Your task to perform on an android device: turn vacation reply on in the gmail app Image 0: 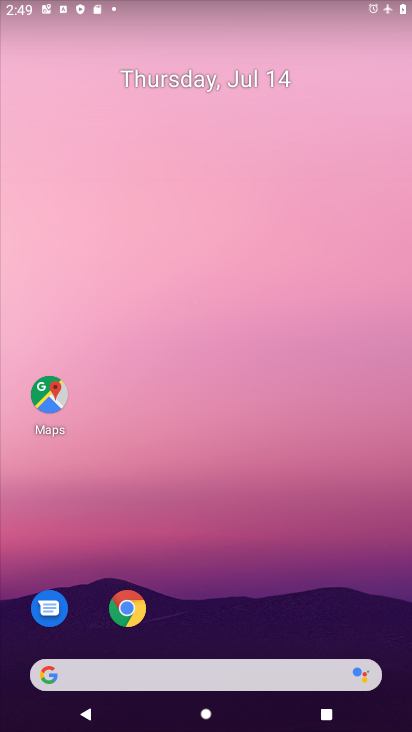
Step 0: drag from (371, 619) to (301, 60)
Your task to perform on an android device: turn vacation reply on in the gmail app Image 1: 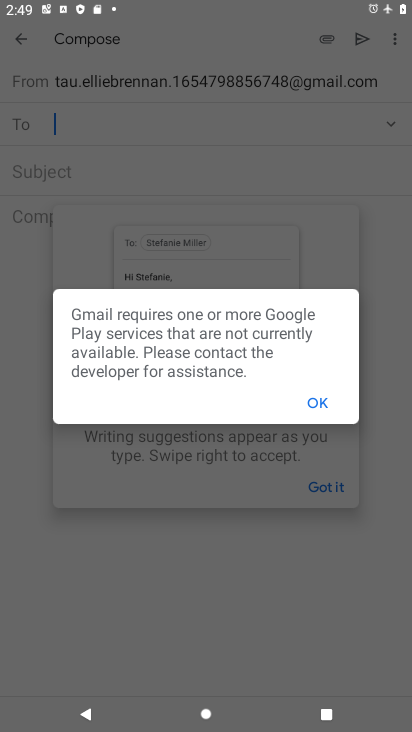
Step 1: press home button
Your task to perform on an android device: turn vacation reply on in the gmail app Image 2: 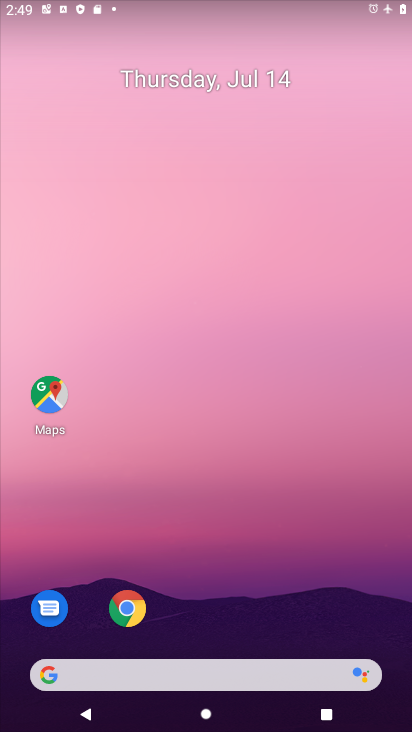
Step 2: drag from (383, 633) to (349, 132)
Your task to perform on an android device: turn vacation reply on in the gmail app Image 3: 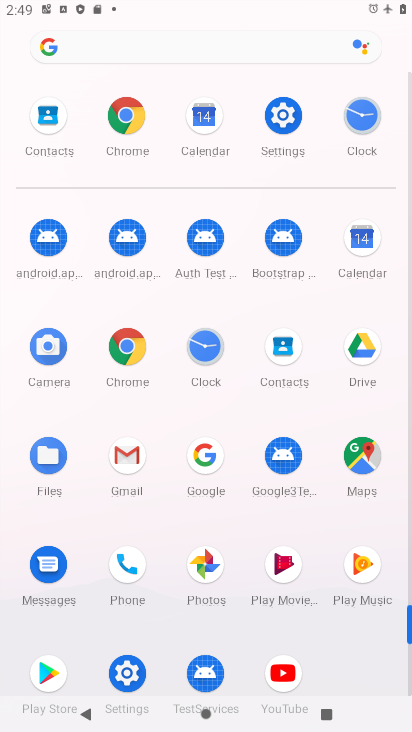
Step 3: click (126, 454)
Your task to perform on an android device: turn vacation reply on in the gmail app Image 4: 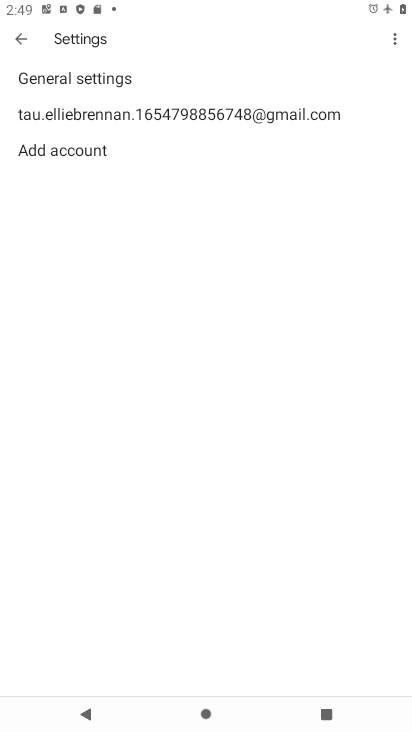
Step 4: click (127, 117)
Your task to perform on an android device: turn vacation reply on in the gmail app Image 5: 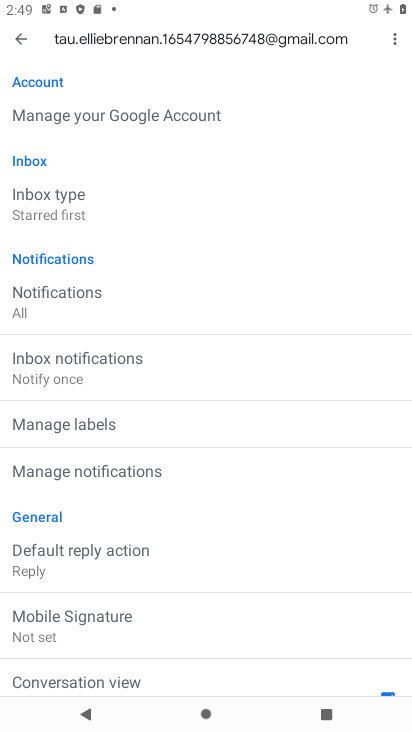
Step 5: drag from (236, 602) to (245, 294)
Your task to perform on an android device: turn vacation reply on in the gmail app Image 6: 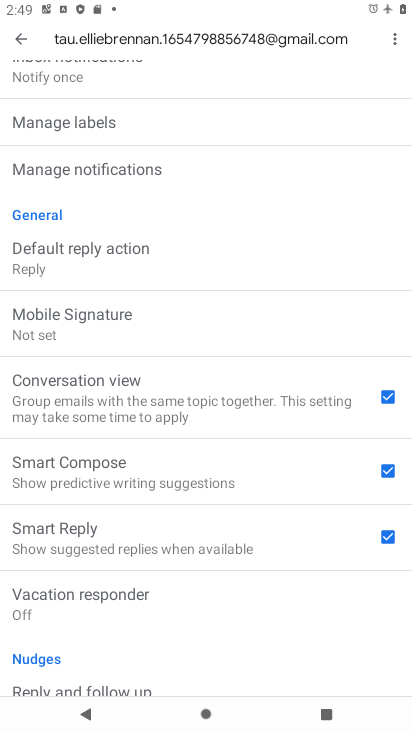
Step 6: click (125, 591)
Your task to perform on an android device: turn vacation reply on in the gmail app Image 7: 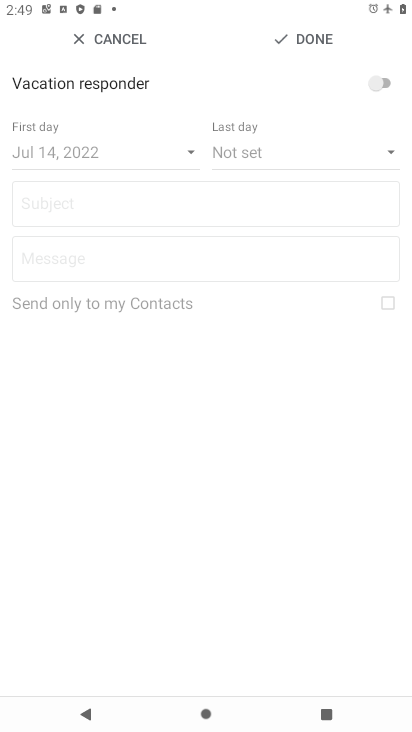
Step 7: click (385, 81)
Your task to perform on an android device: turn vacation reply on in the gmail app Image 8: 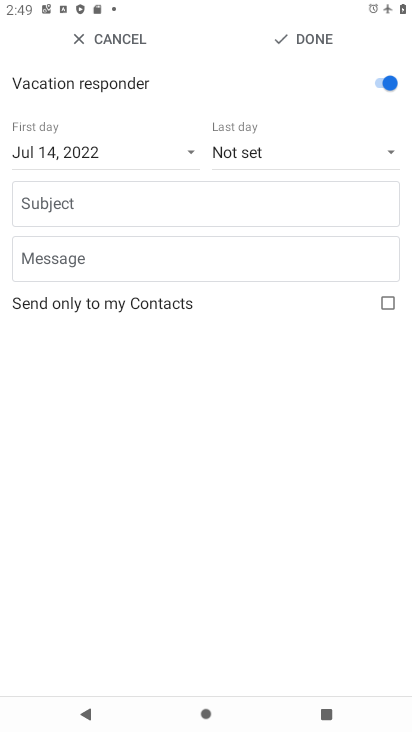
Step 8: click (308, 35)
Your task to perform on an android device: turn vacation reply on in the gmail app Image 9: 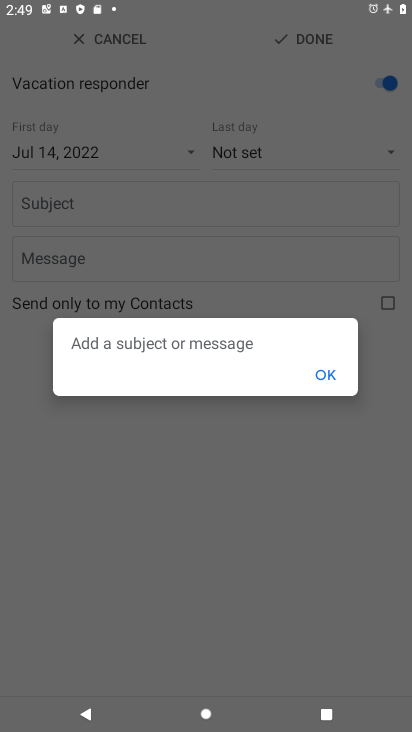
Step 9: click (324, 372)
Your task to perform on an android device: turn vacation reply on in the gmail app Image 10: 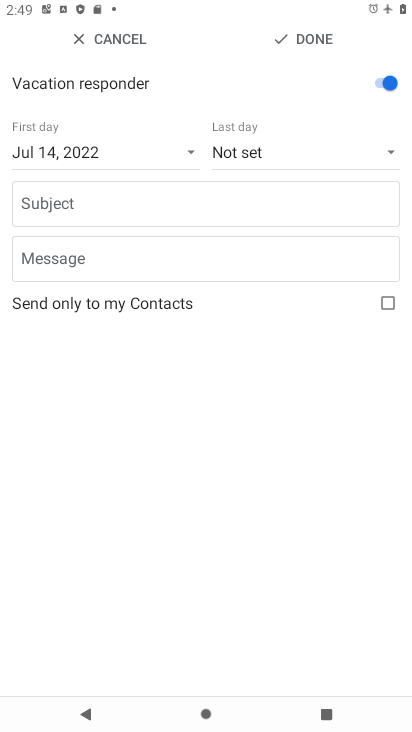
Step 10: task complete